Your task to perform on an android device: check storage Image 0: 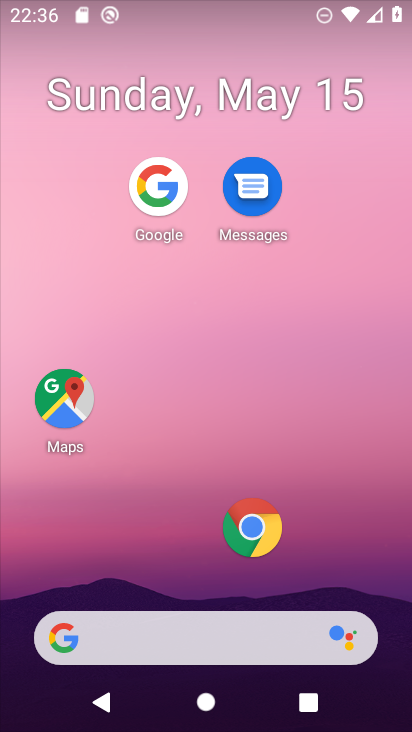
Step 0: press home button
Your task to perform on an android device: check storage Image 1: 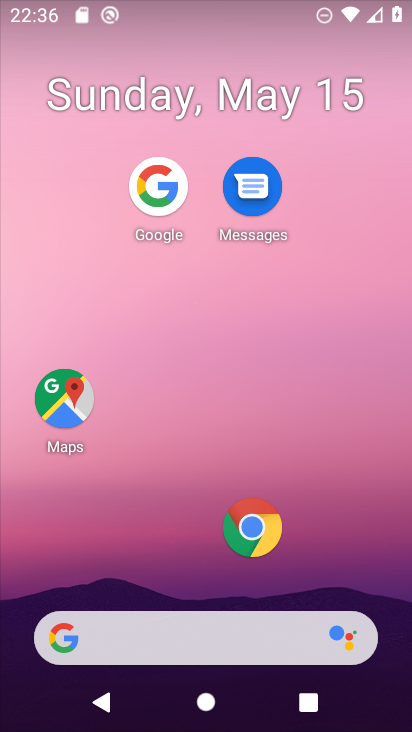
Step 1: drag from (248, 317) to (299, 107)
Your task to perform on an android device: check storage Image 2: 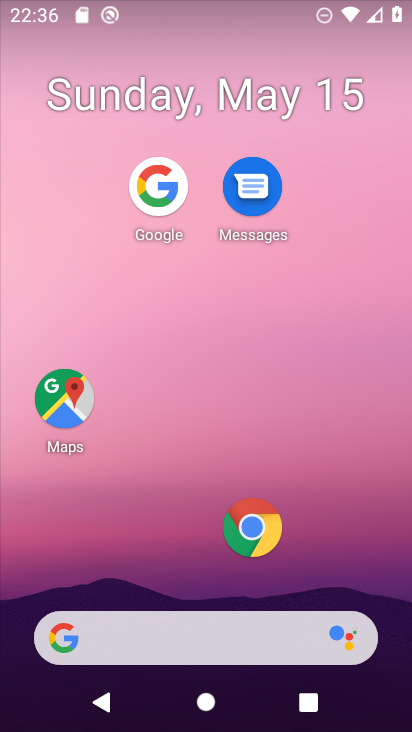
Step 2: drag from (227, 629) to (335, 210)
Your task to perform on an android device: check storage Image 3: 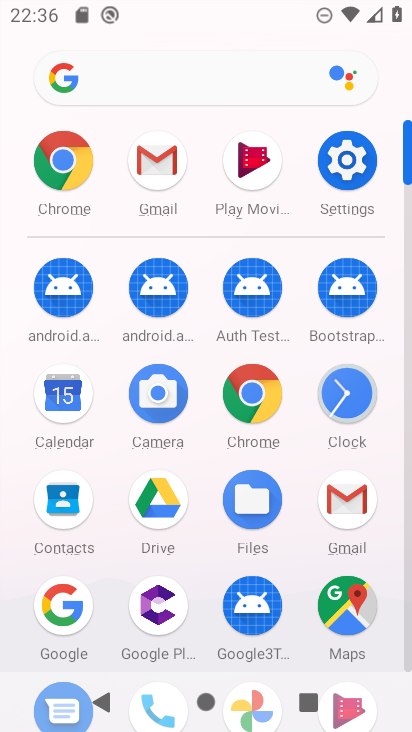
Step 3: click (338, 167)
Your task to perform on an android device: check storage Image 4: 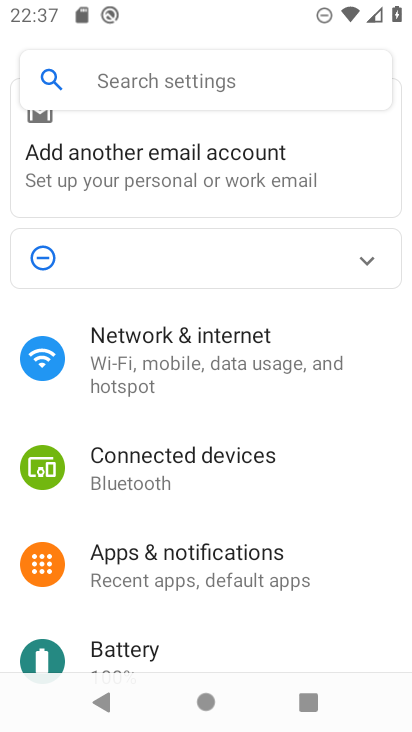
Step 4: drag from (206, 667) to (334, 222)
Your task to perform on an android device: check storage Image 5: 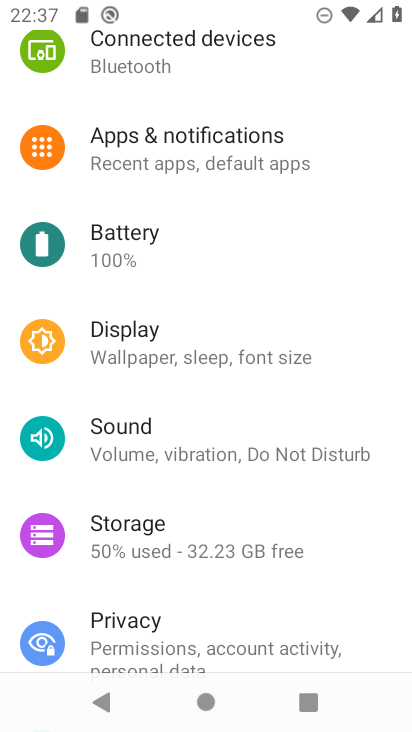
Step 5: click (162, 523)
Your task to perform on an android device: check storage Image 6: 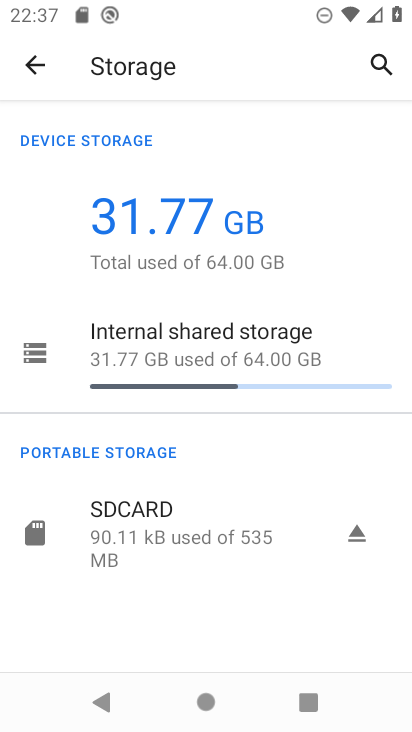
Step 6: task complete